Your task to perform on an android device: Is it going to rain tomorrow? Image 0: 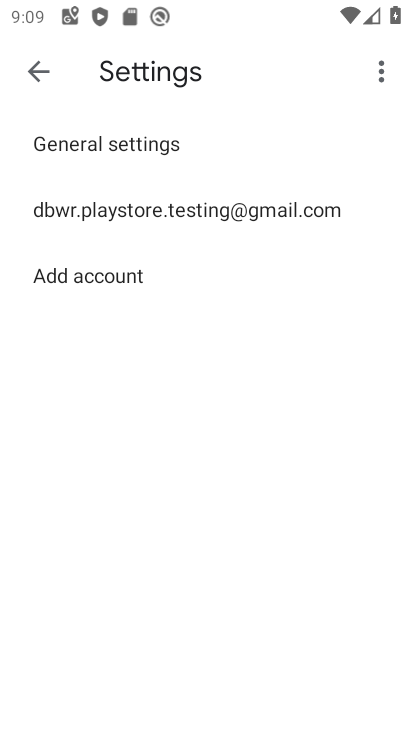
Step 0: press home button
Your task to perform on an android device: Is it going to rain tomorrow? Image 1: 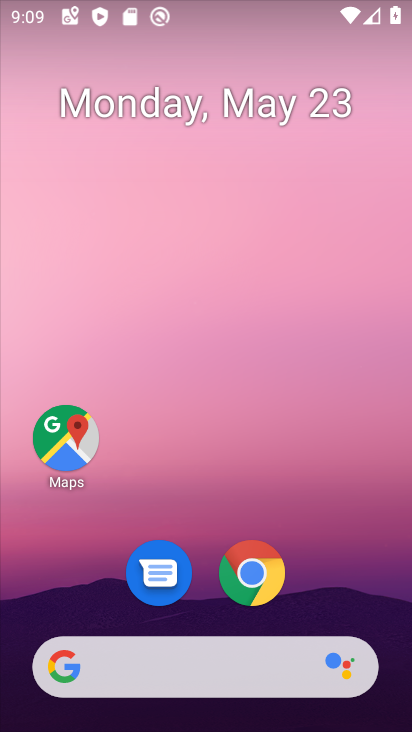
Step 1: click (195, 665)
Your task to perform on an android device: Is it going to rain tomorrow? Image 2: 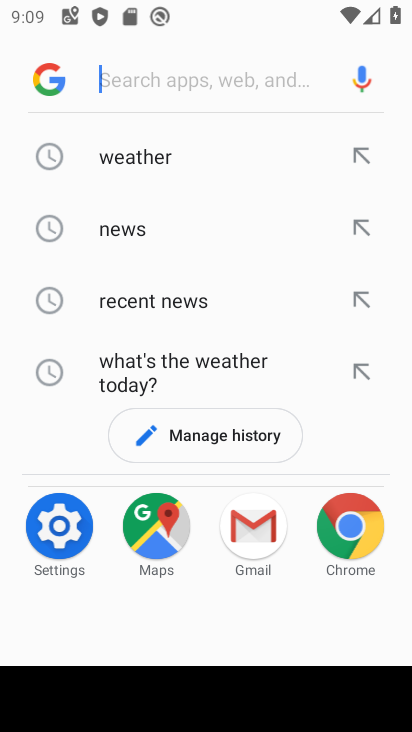
Step 2: click (173, 160)
Your task to perform on an android device: Is it going to rain tomorrow? Image 3: 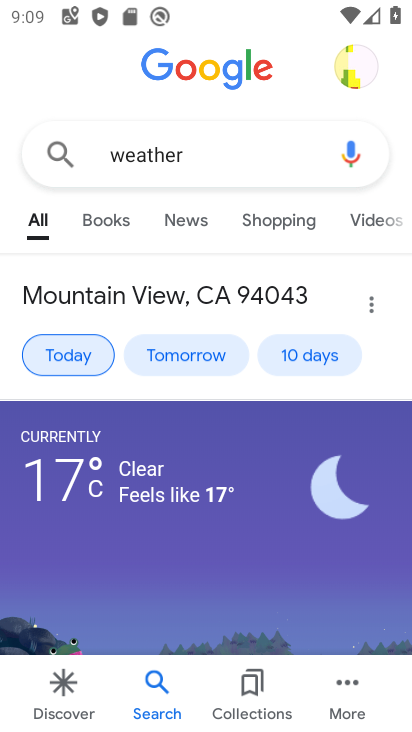
Step 3: click (211, 360)
Your task to perform on an android device: Is it going to rain tomorrow? Image 4: 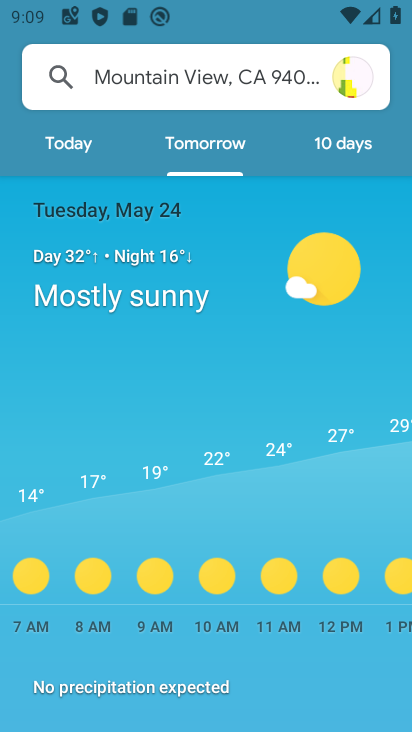
Step 4: task complete